Your task to perform on an android device: open app "Viber Messenger" (install if not already installed) Image 0: 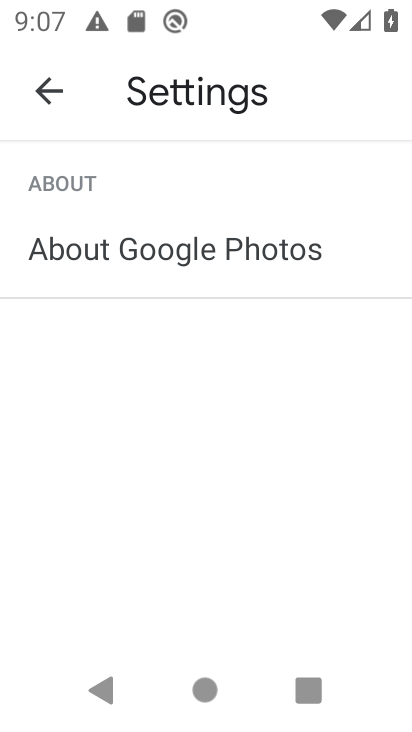
Step 0: press home button
Your task to perform on an android device: open app "Viber Messenger" (install if not already installed) Image 1: 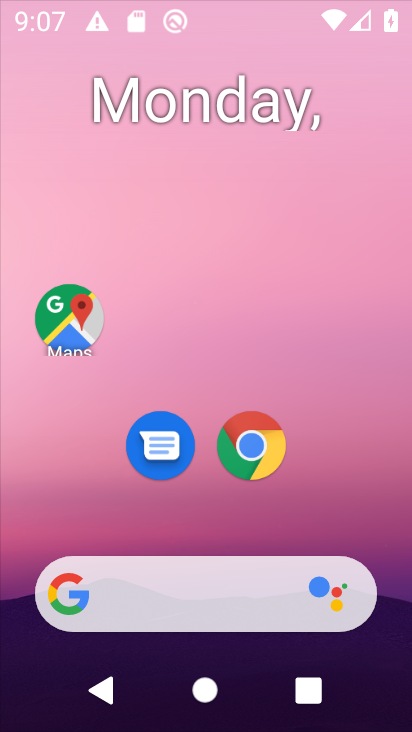
Step 1: drag from (377, 602) to (228, 57)
Your task to perform on an android device: open app "Viber Messenger" (install if not already installed) Image 2: 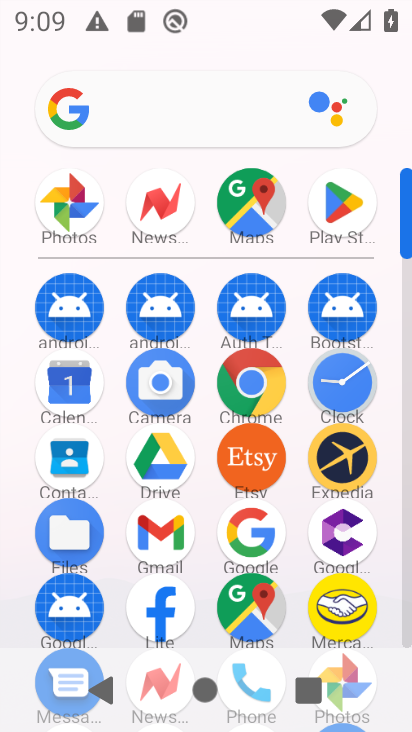
Step 2: click (330, 235)
Your task to perform on an android device: open app "Viber Messenger" (install if not already installed) Image 3: 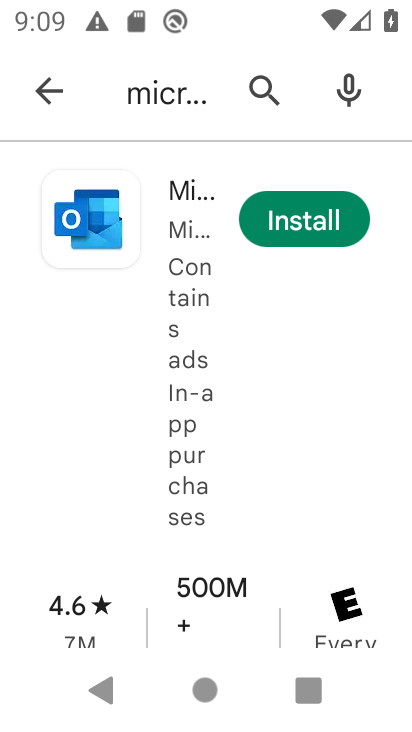
Step 3: press back button
Your task to perform on an android device: open app "Viber Messenger" (install if not already installed) Image 4: 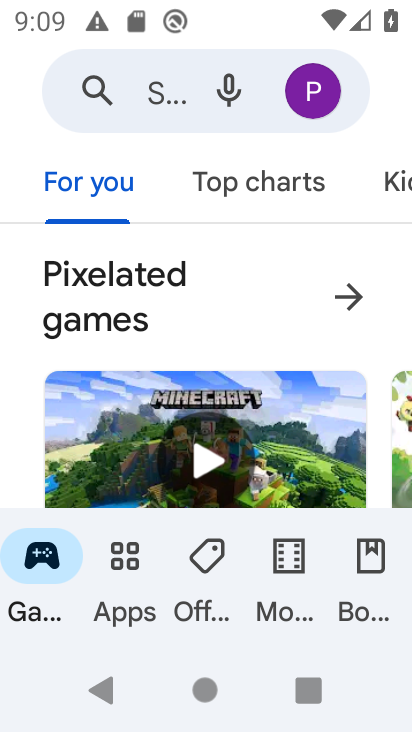
Step 4: click (172, 88)
Your task to perform on an android device: open app "Viber Messenger" (install if not already installed) Image 5: 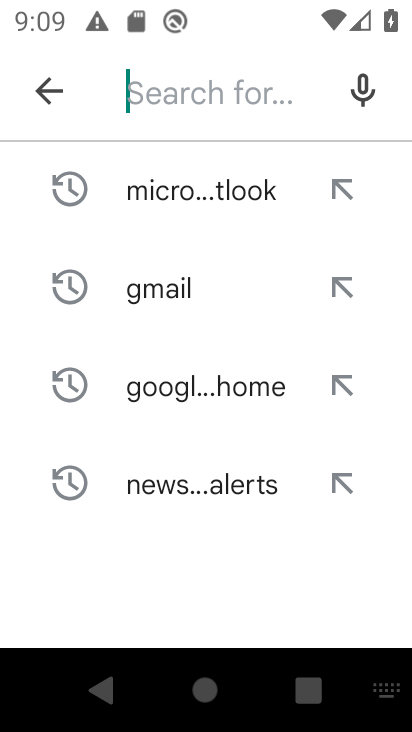
Step 5: type "Viber Messenger"
Your task to perform on an android device: open app "Viber Messenger" (install if not already installed) Image 6: 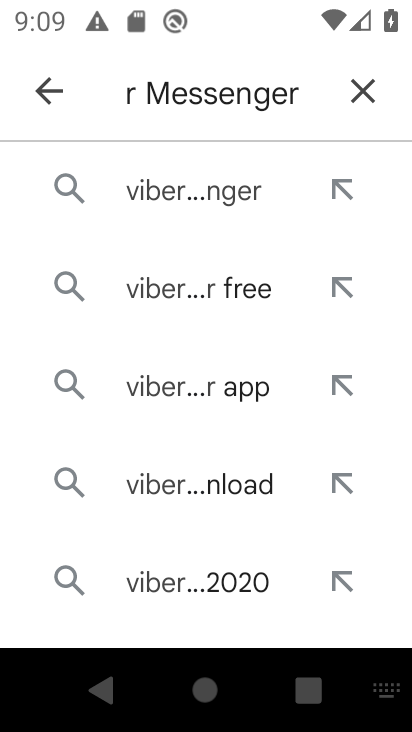
Step 6: click (154, 195)
Your task to perform on an android device: open app "Viber Messenger" (install if not already installed) Image 7: 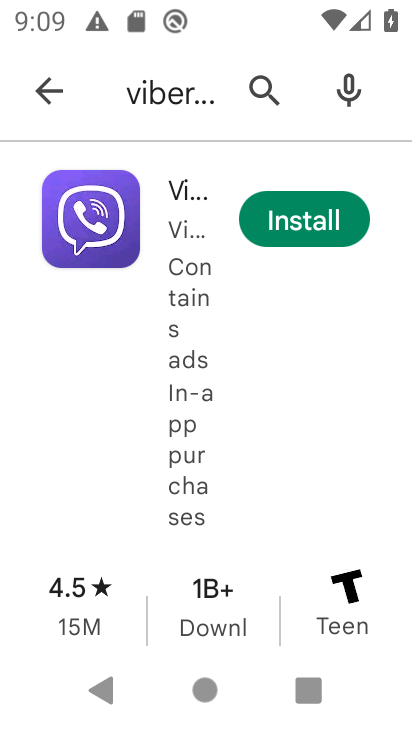
Step 7: task complete